Your task to perform on an android device: turn pop-ups on in chrome Image 0: 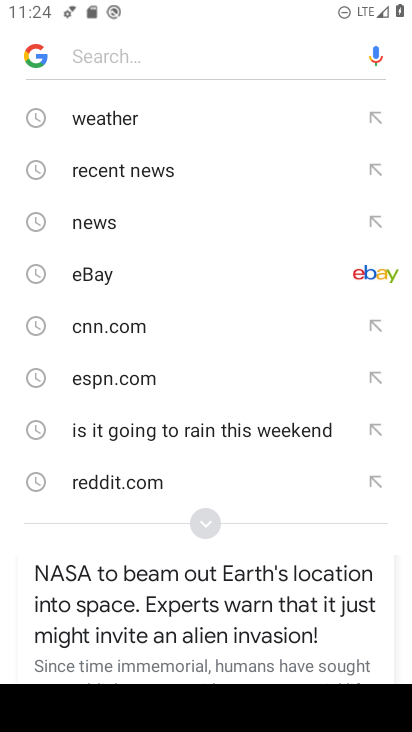
Step 0: press home button
Your task to perform on an android device: turn pop-ups on in chrome Image 1: 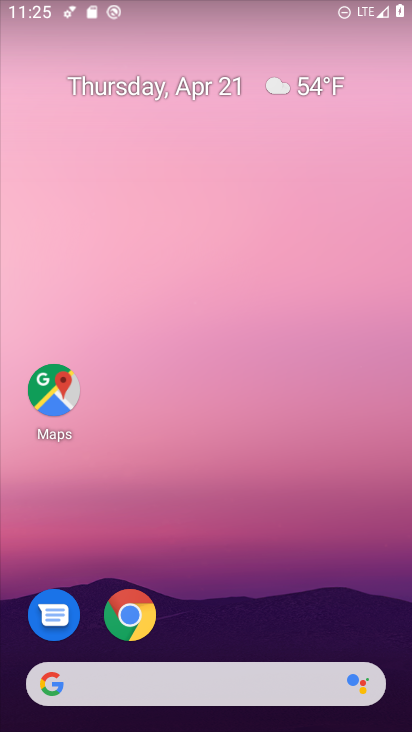
Step 1: click (118, 614)
Your task to perform on an android device: turn pop-ups on in chrome Image 2: 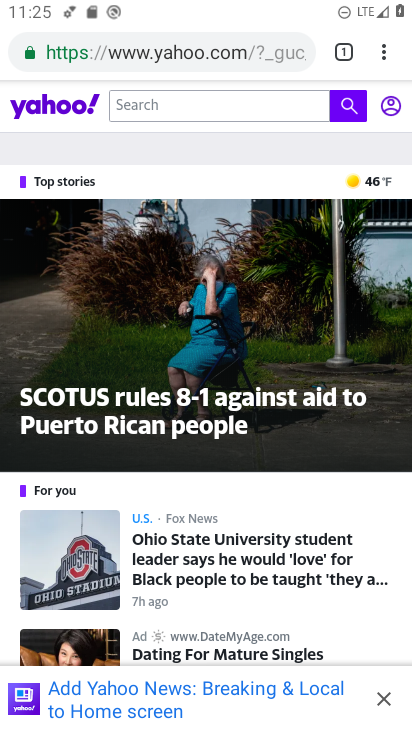
Step 2: click (380, 56)
Your task to perform on an android device: turn pop-ups on in chrome Image 3: 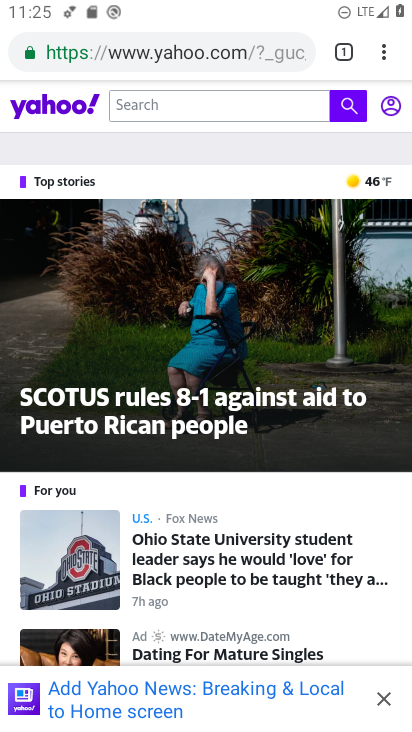
Step 3: click (382, 68)
Your task to perform on an android device: turn pop-ups on in chrome Image 4: 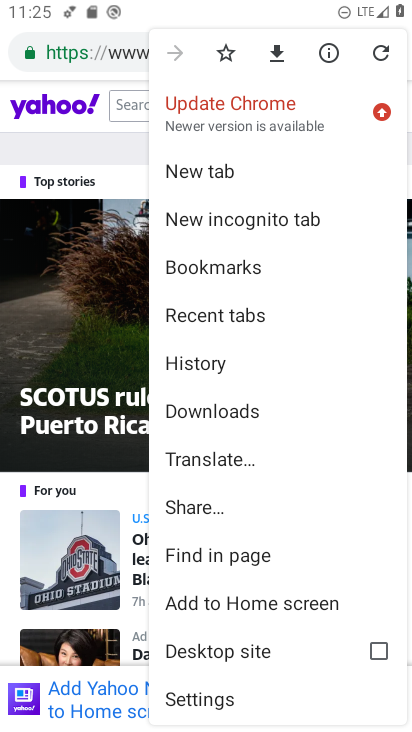
Step 4: click (260, 698)
Your task to perform on an android device: turn pop-ups on in chrome Image 5: 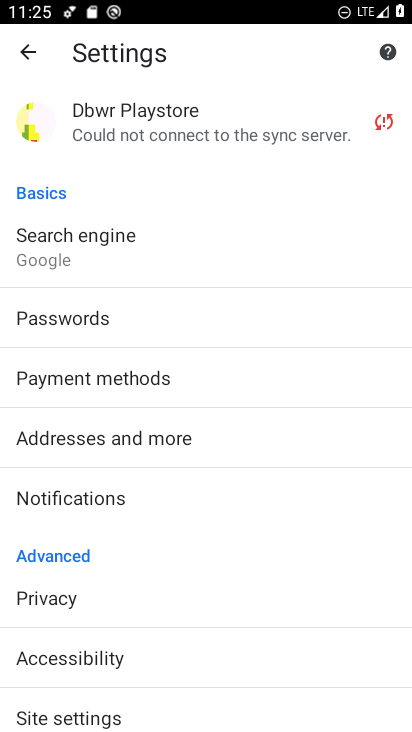
Step 5: click (113, 714)
Your task to perform on an android device: turn pop-ups on in chrome Image 6: 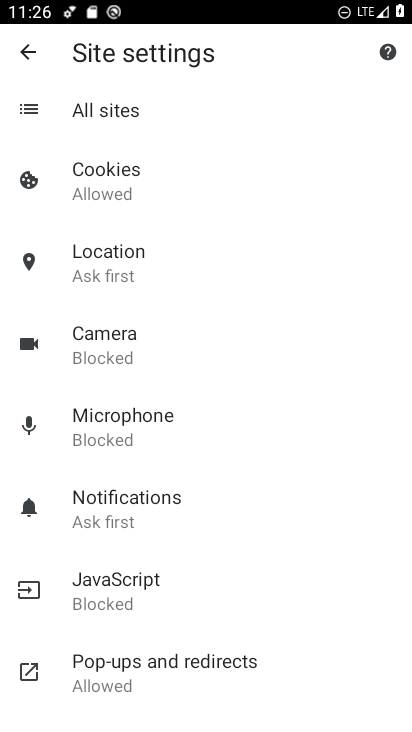
Step 6: click (145, 671)
Your task to perform on an android device: turn pop-ups on in chrome Image 7: 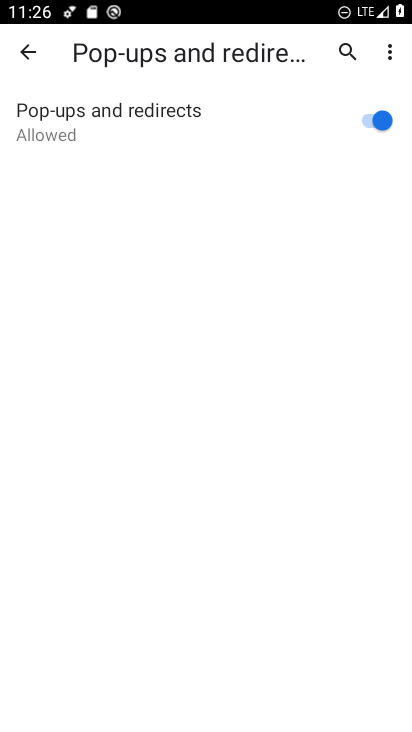
Step 7: task complete